Your task to perform on an android device: Go to eBay Image 0: 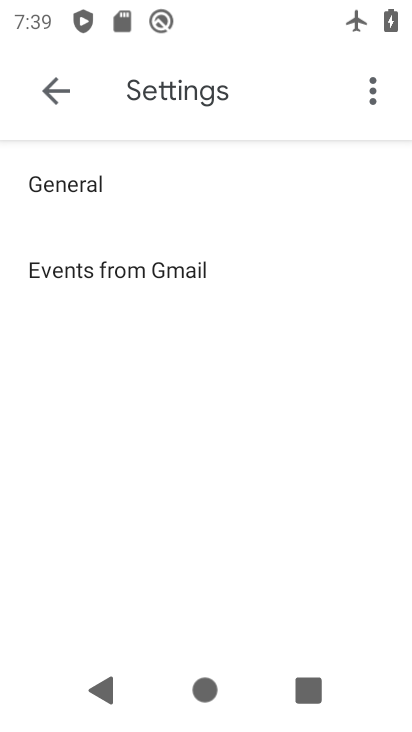
Step 0: press home button
Your task to perform on an android device: Go to eBay Image 1: 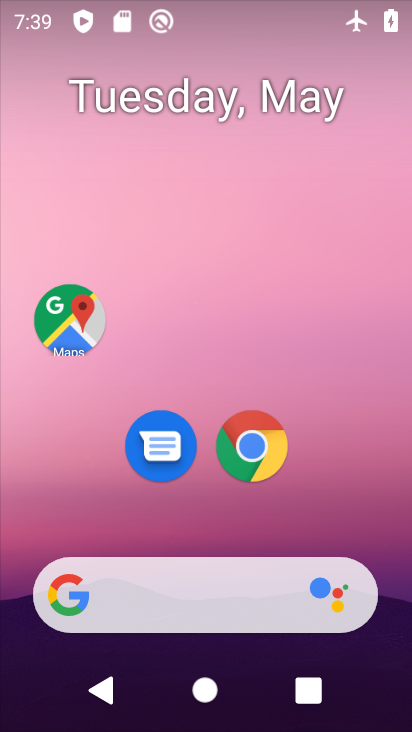
Step 1: click (254, 454)
Your task to perform on an android device: Go to eBay Image 2: 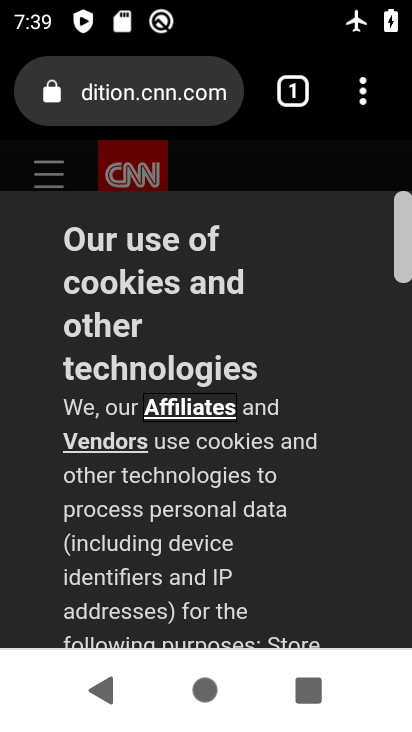
Step 2: click (100, 103)
Your task to perform on an android device: Go to eBay Image 3: 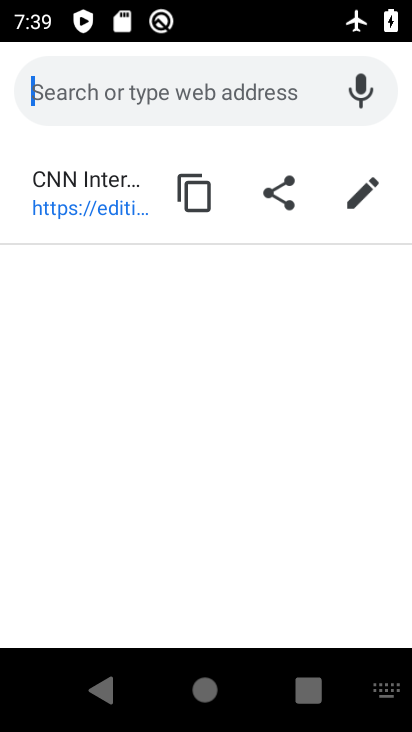
Step 3: type "ebay"
Your task to perform on an android device: Go to eBay Image 4: 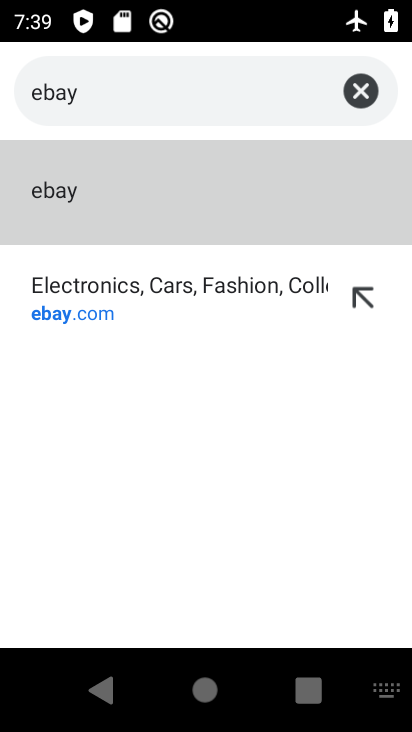
Step 4: click (49, 213)
Your task to perform on an android device: Go to eBay Image 5: 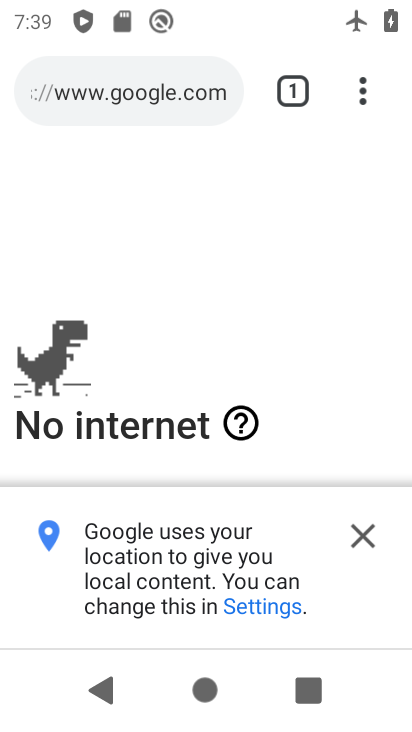
Step 5: task complete